Your task to perform on an android device: Add corsair k70 to the cart on newegg.com, then select checkout. Image 0: 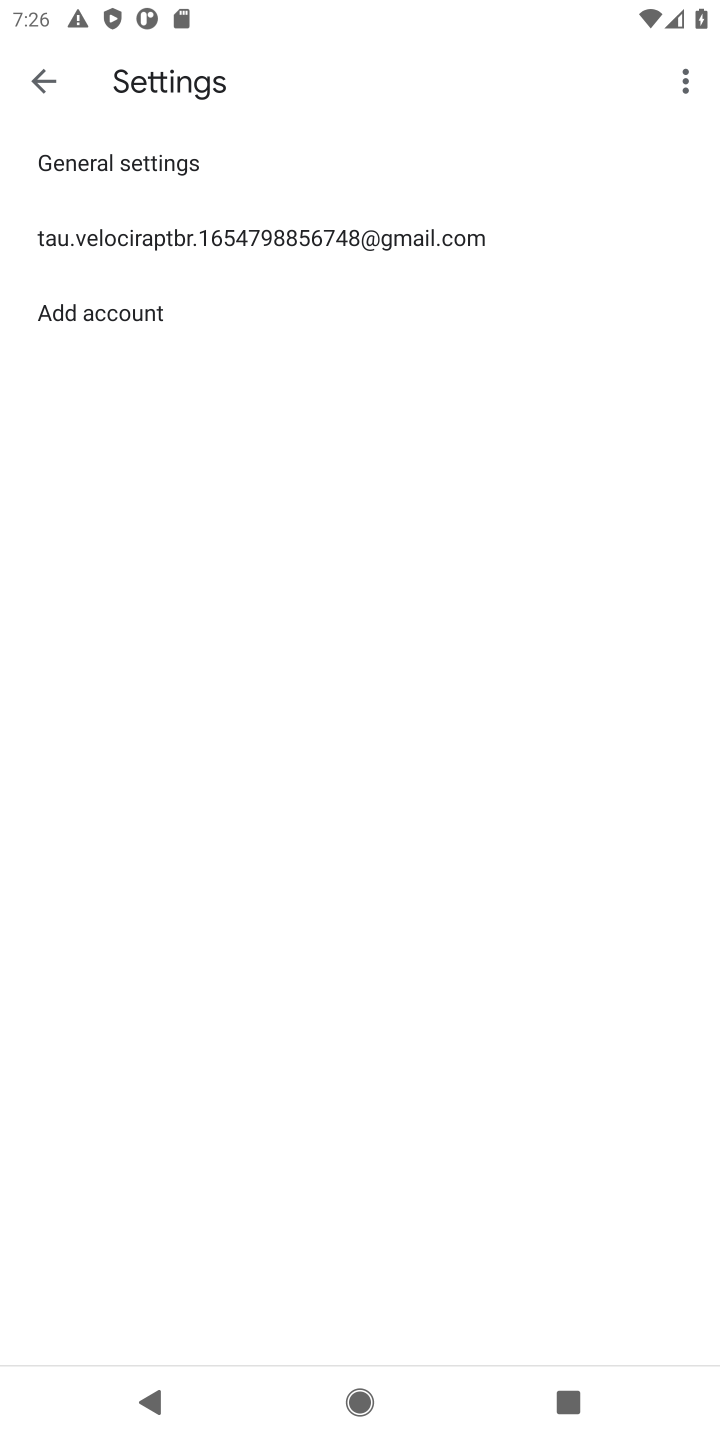
Step 0: press home button
Your task to perform on an android device: Add corsair k70 to the cart on newegg.com, then select checkout. Image 1: 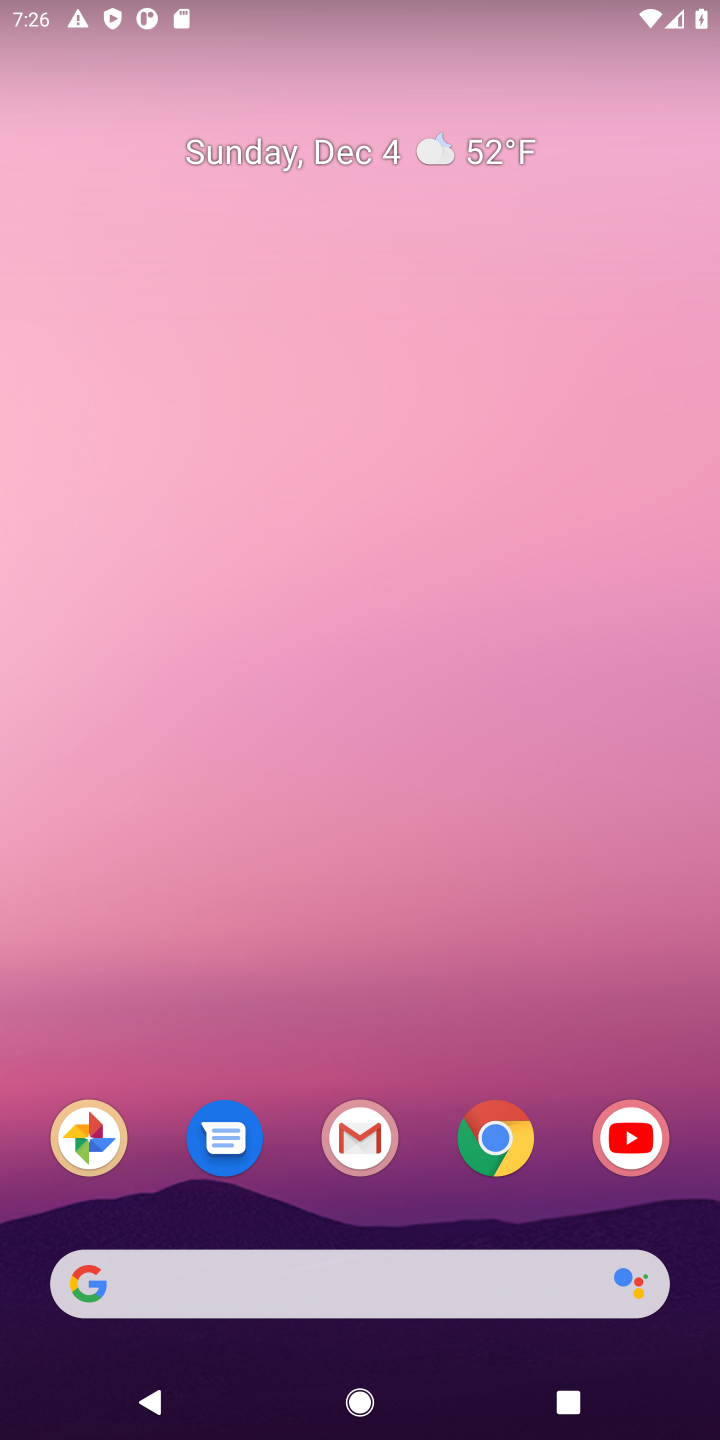
Step 1: click (496, 1146)
Your task to perform on an android device: Add corsair k70 to the cart on newegg.com, then select checkout. Image 2: 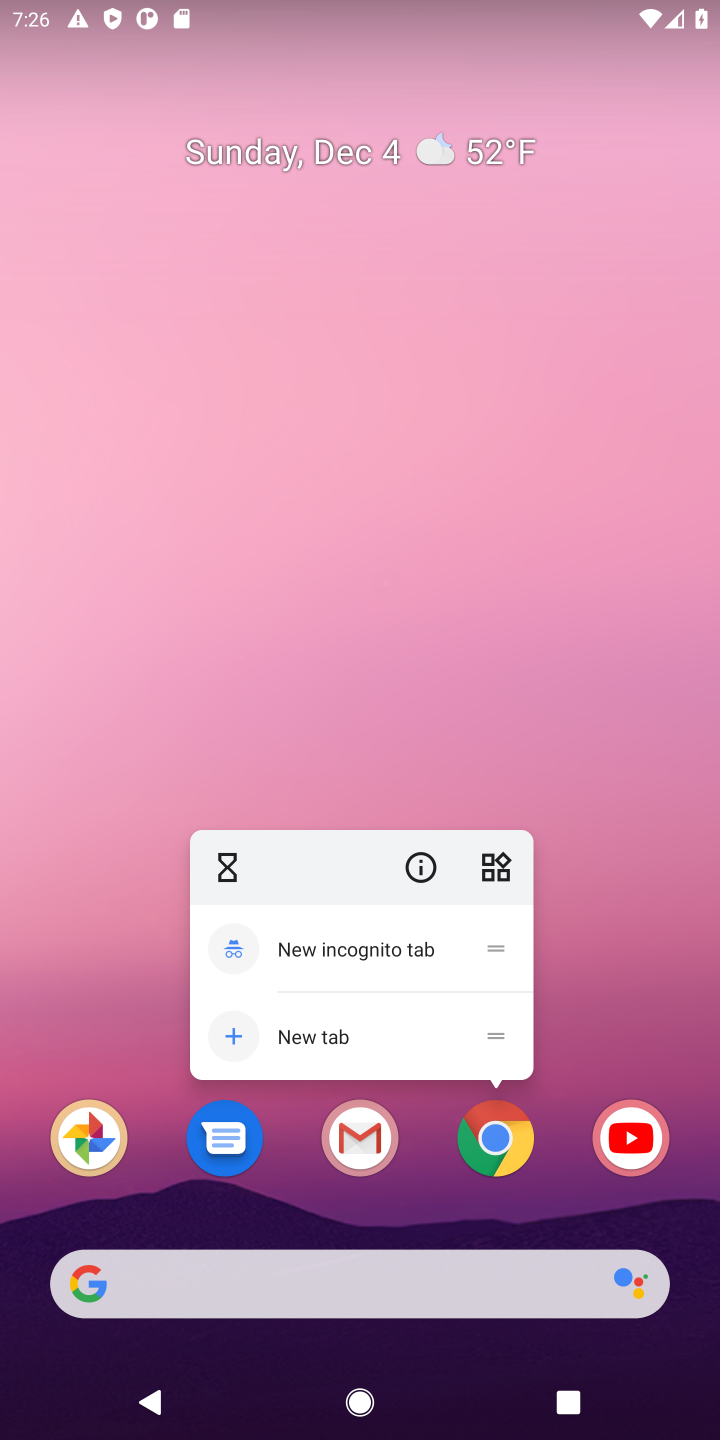
Step 2: click (496, 1146)
Your task to perform on an android device: Add corsair k70 to the cart on newegg.com, then select checkout. Image 3: 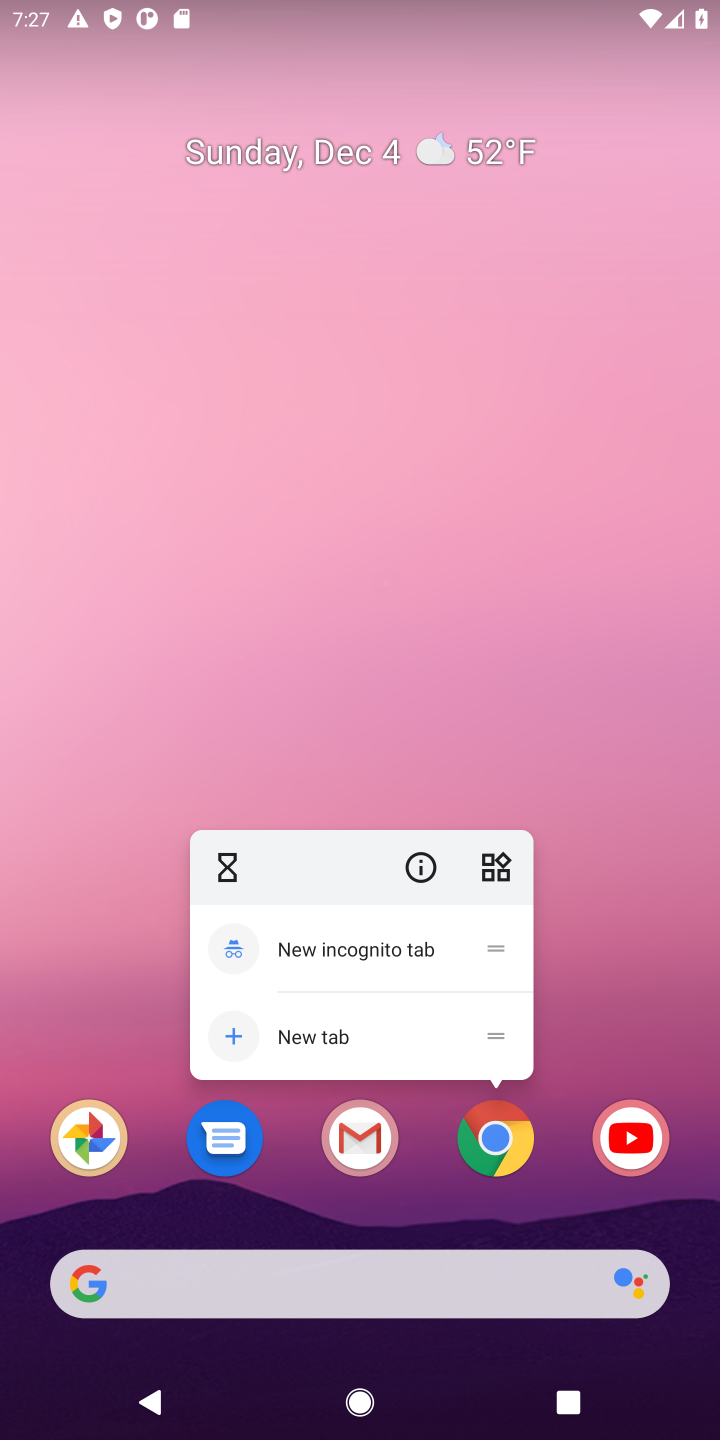
Step 3: click (496, 1146)
Your task to perform on an android device: Add corsair k70 to the cart on newegg.com, then select checkout. Image 4: 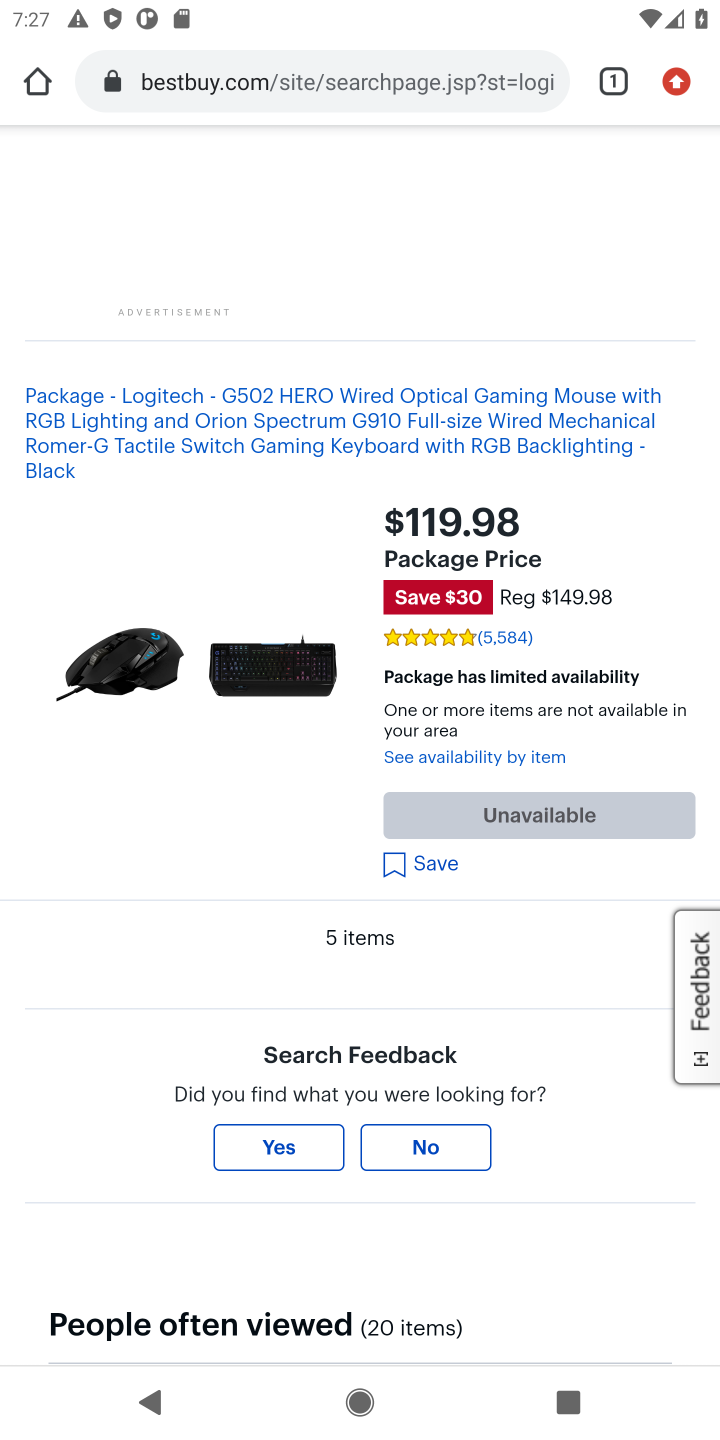
Step 4: click (450, 67)
Your task to perform on an android device: Add corsair k70 to the cart on newegg.com, then select checkout. Image 5: 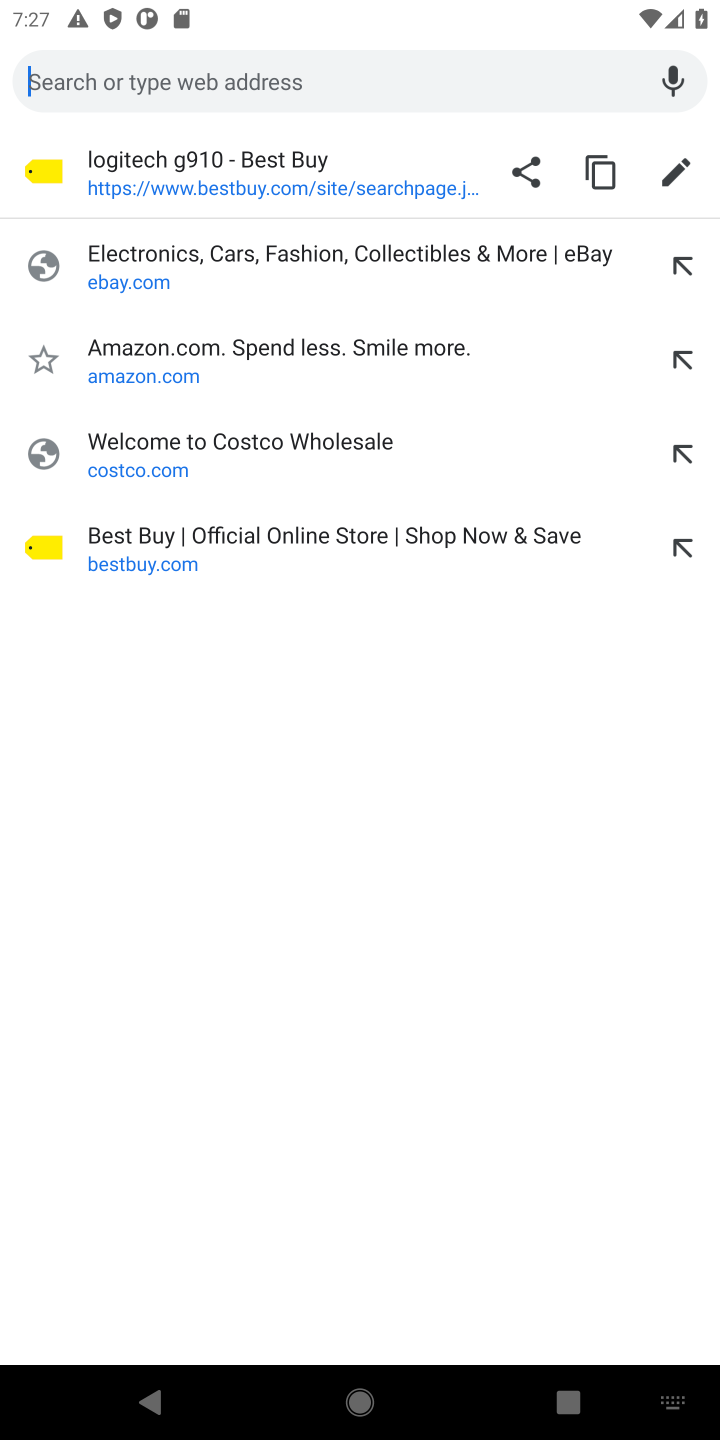
Step 5: type "newegg.com"
Your task to perform on an android device: Add corsair k70 to the cart on newegg.com, then select checkout. Image 6: 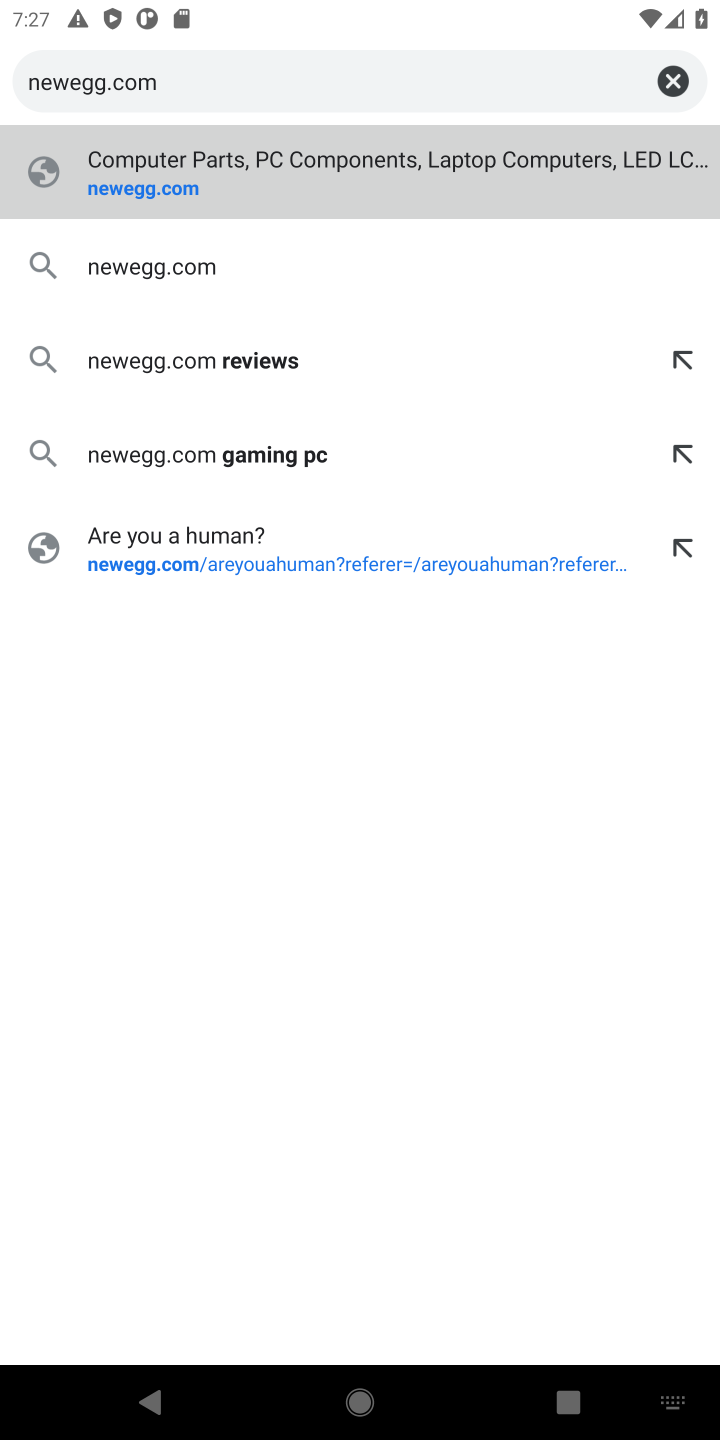
Step 6: press enter
Your task to perform on an android device: Add corsair k70 to the cart on newegg.com, then select checkout. Image 7: 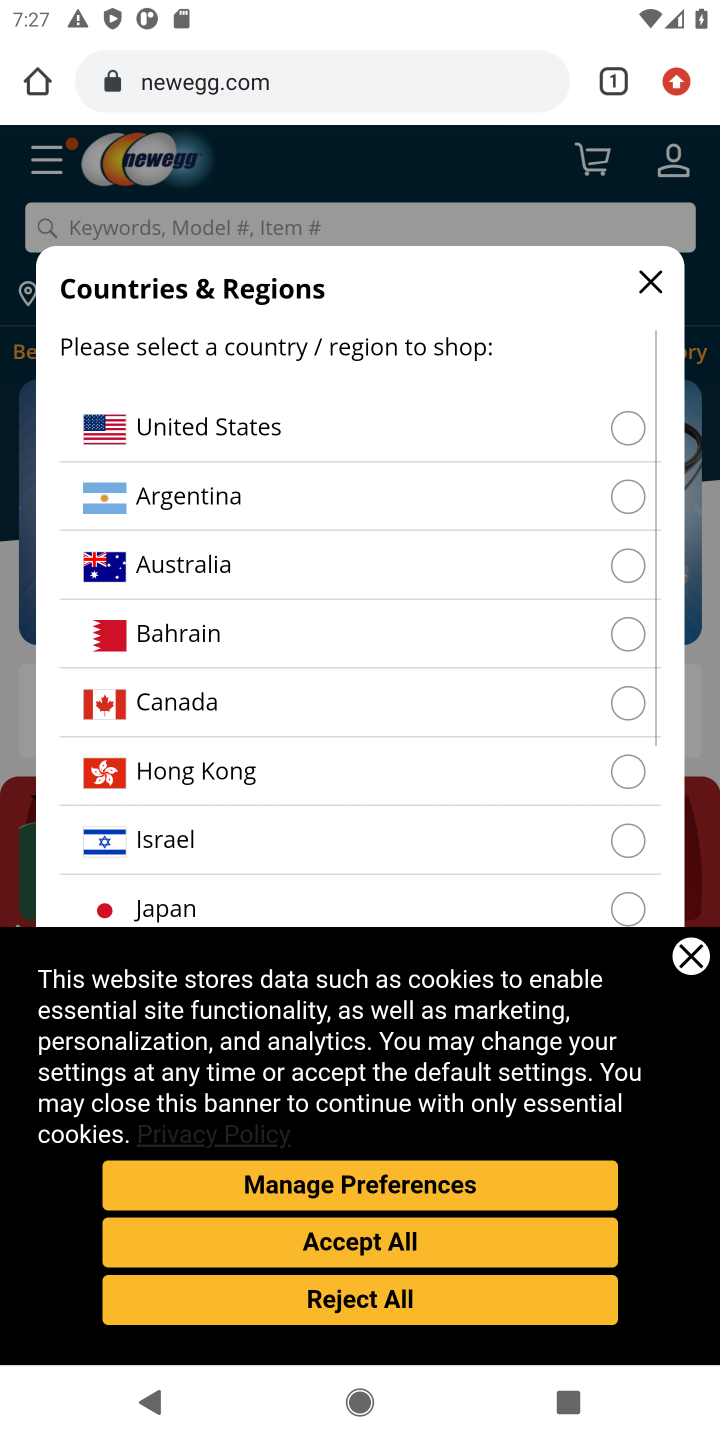
Step 7: click (702, 949)
Your task to perform on an android device: Add corsair k70 to the cart on newegg.com, then select checkout. Image 8: 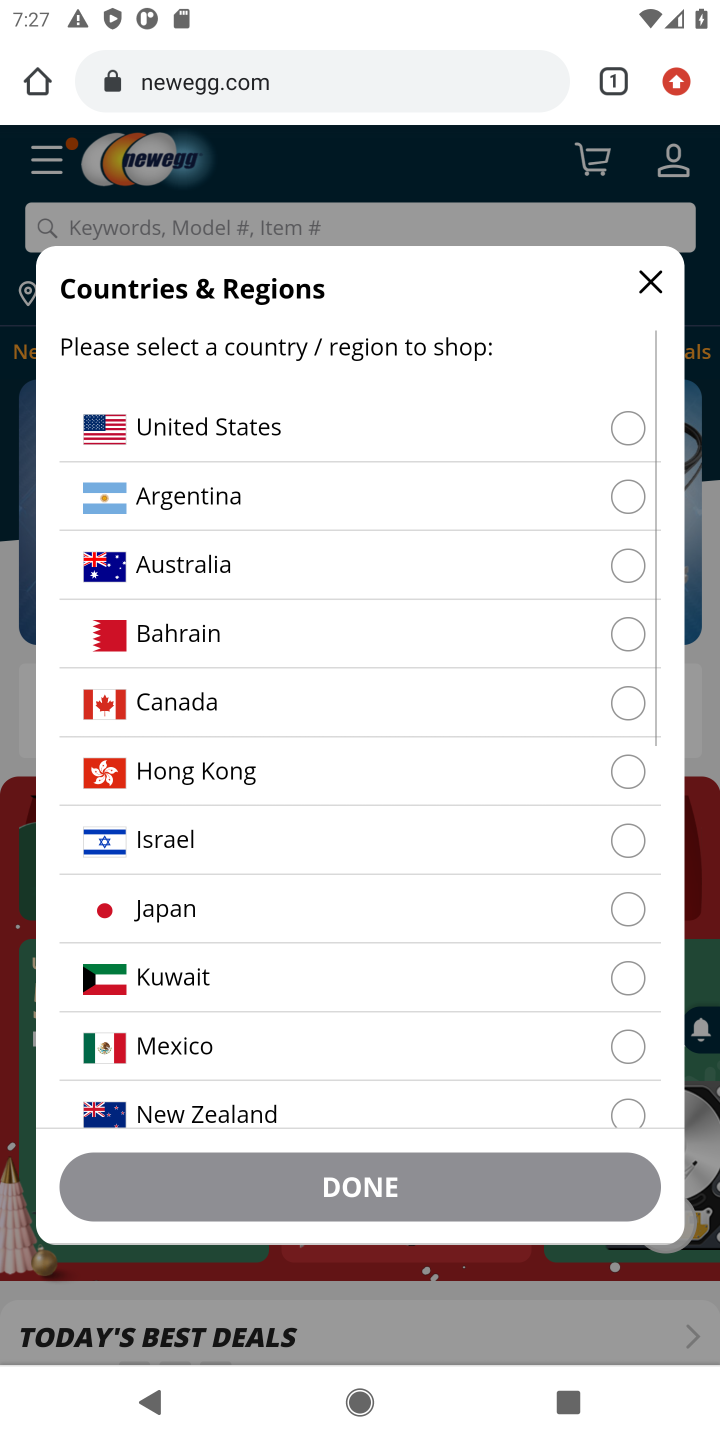
Step 8: click (635, 437)
Your task to perform on an android device: Add corsair k70 to the cart on newegg.com, then select checkout. Image 9: 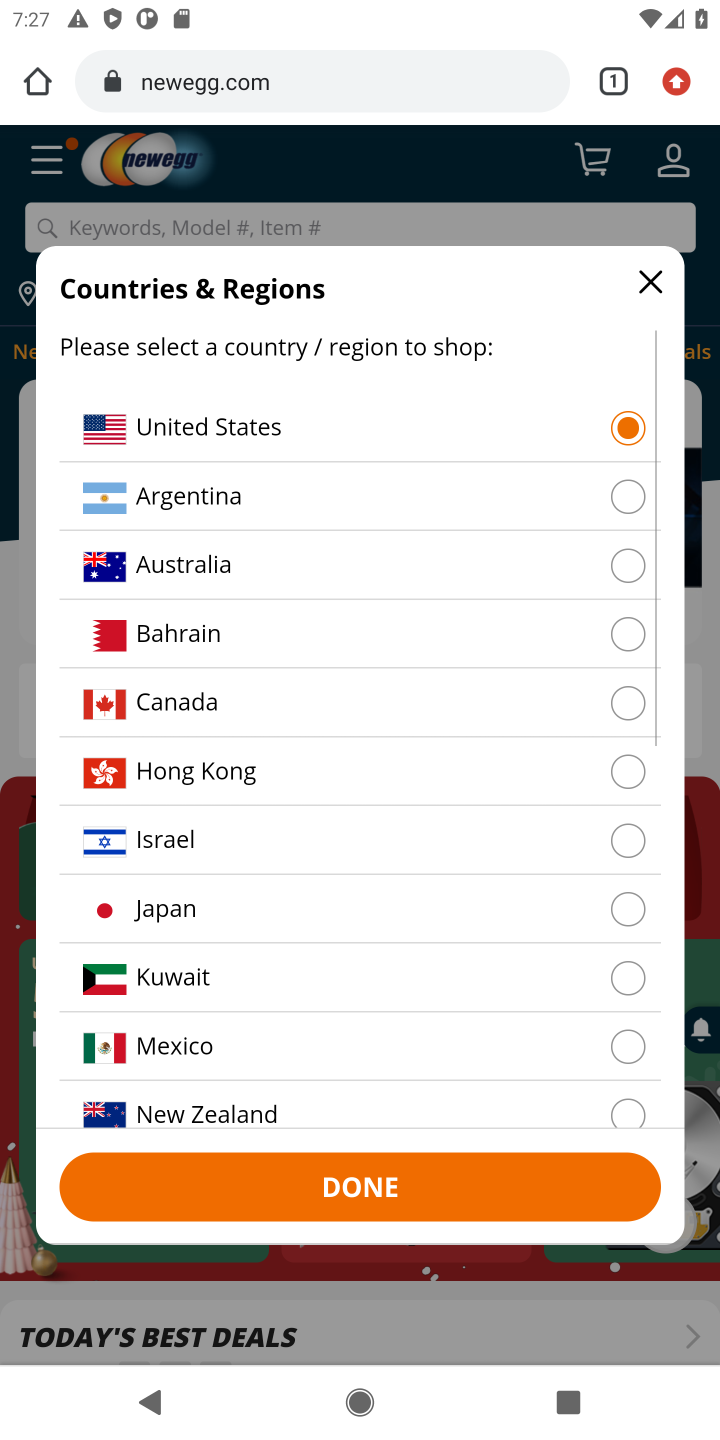
Step 9: click (474, 1173)
Your task to perform on an android device: Add corsair k70 to the cart on newegg.com, then select checkout. Image 10: 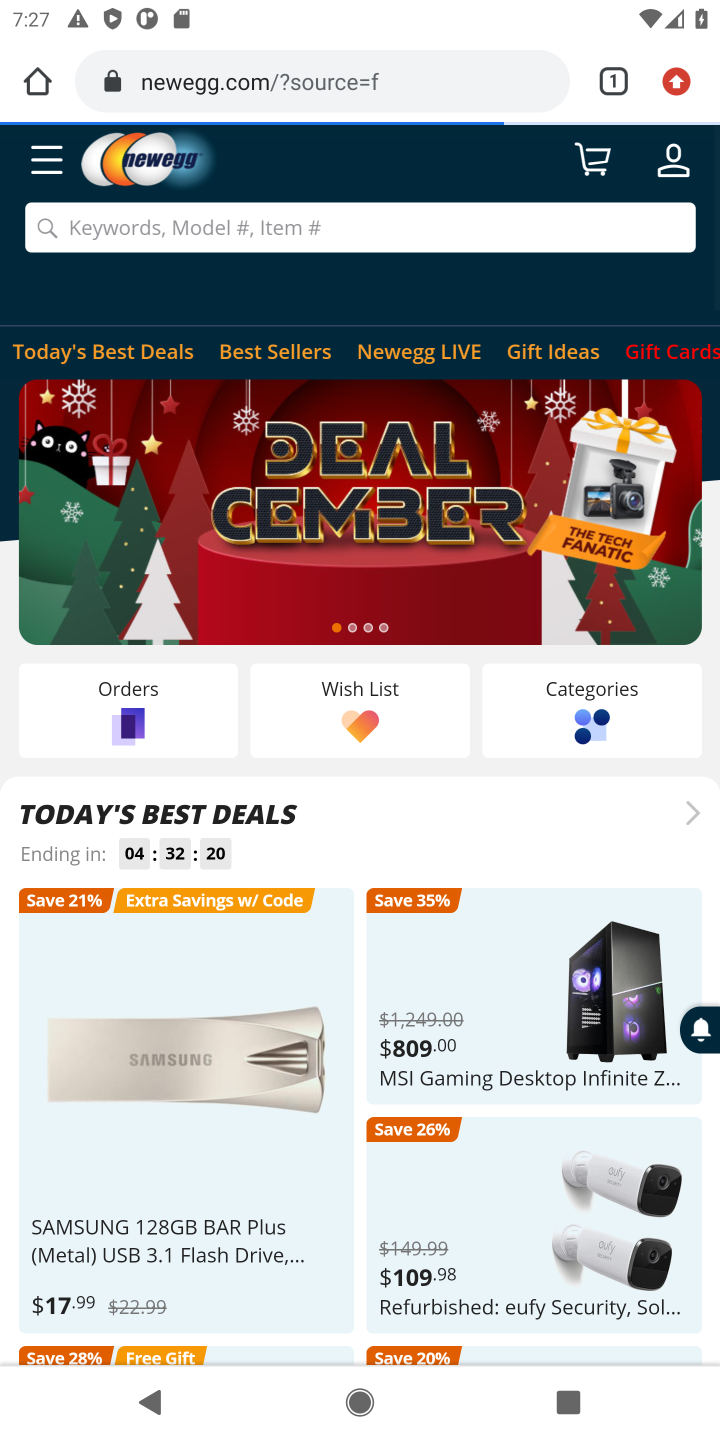
Step 10: click (486, 232)
Your task to perform on an android device: Add corsair k70 to the cart on newegg.com, then select checkout. Image 11: 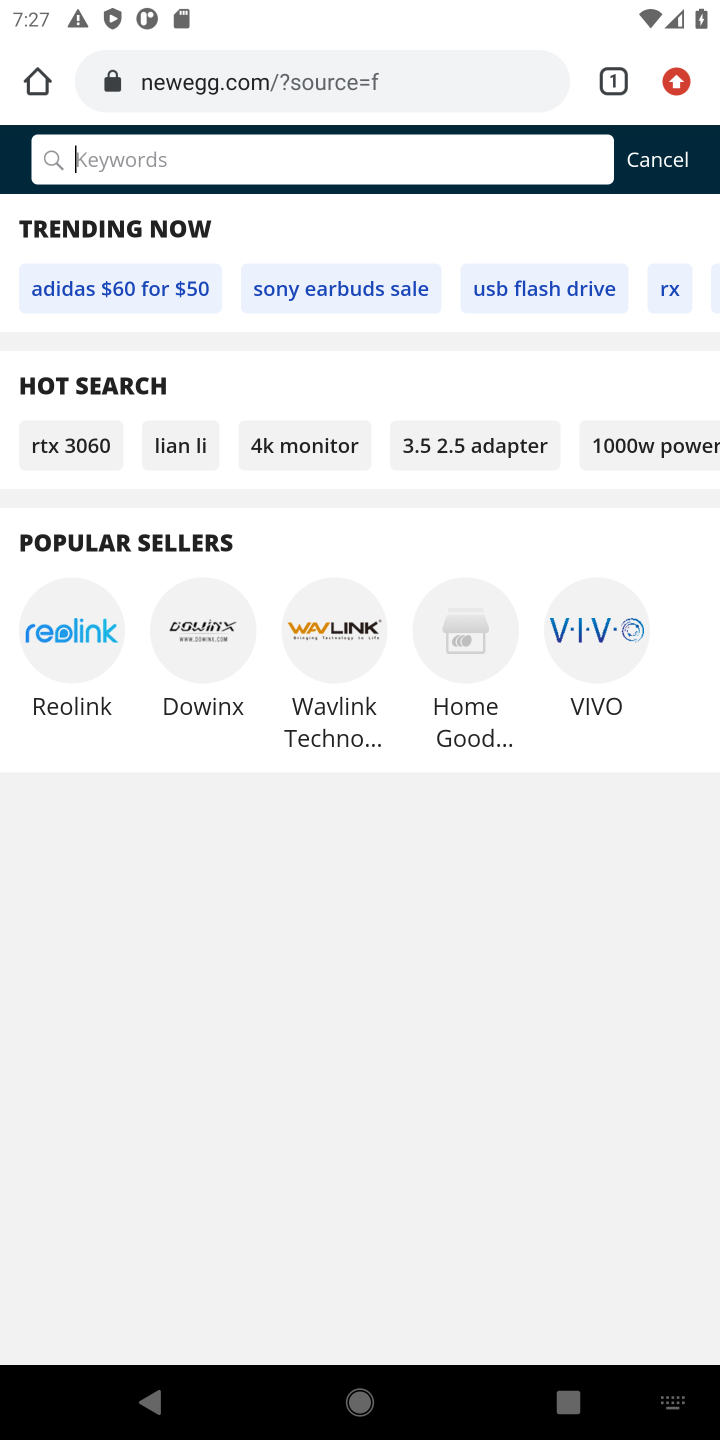
Step 11: press enter
Your task to perform on an android device: Add corsair k70 to the cart on newegg.com, then select checkout. Image 12: 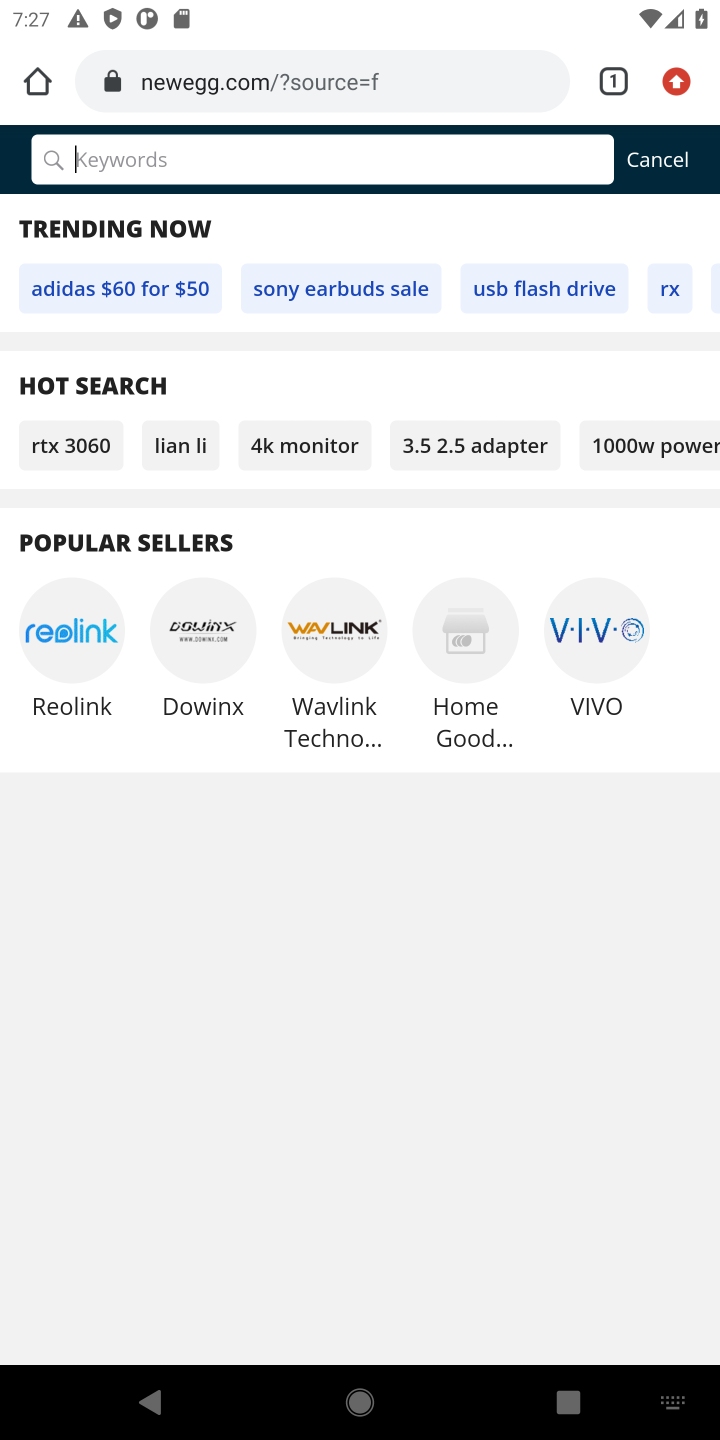
Step 12: type "corsair k70"
Your task to perform on an android device: Add corsair k70 to the cart on newegg.com, then select checkout. Image 13: 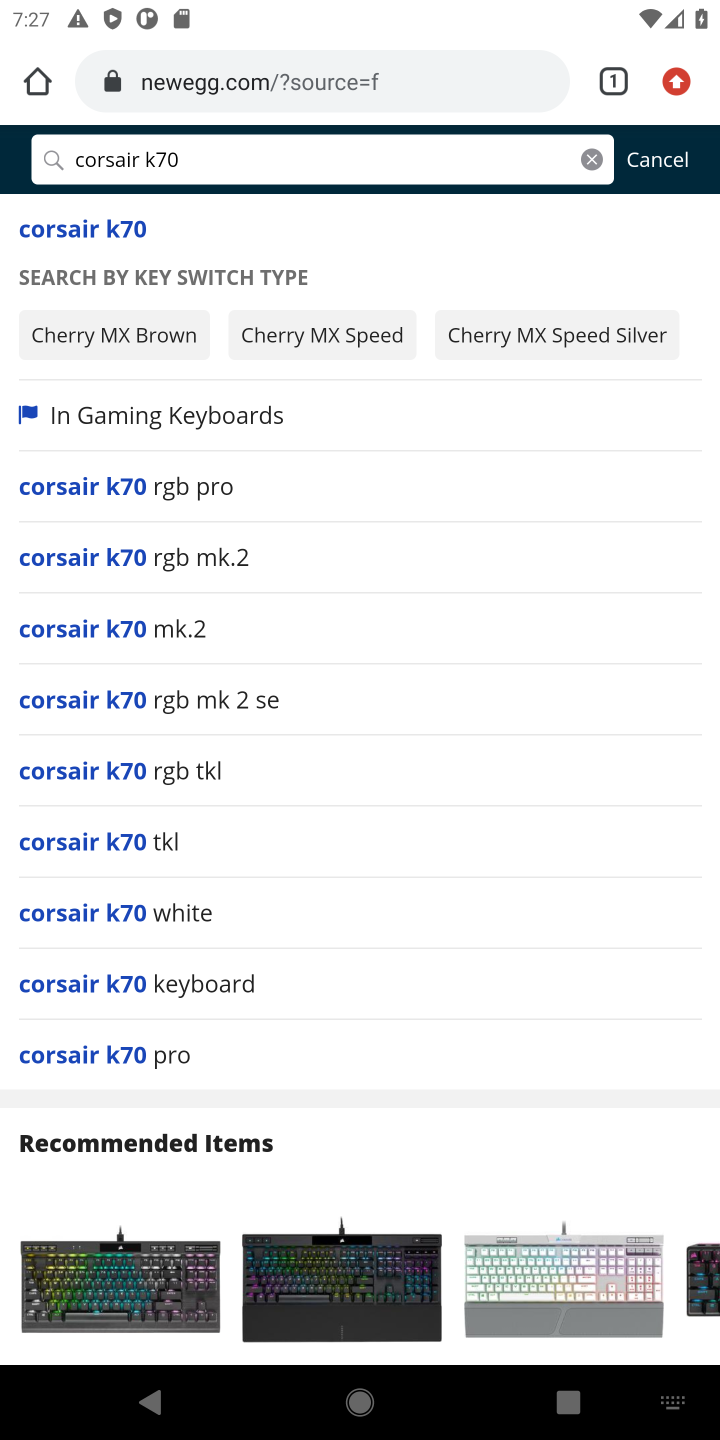
Step 13: click (121, 223)
Your task to perform on an android device: Add corsair k70 to the cart on newegg.com, then select checkout. Image 14: 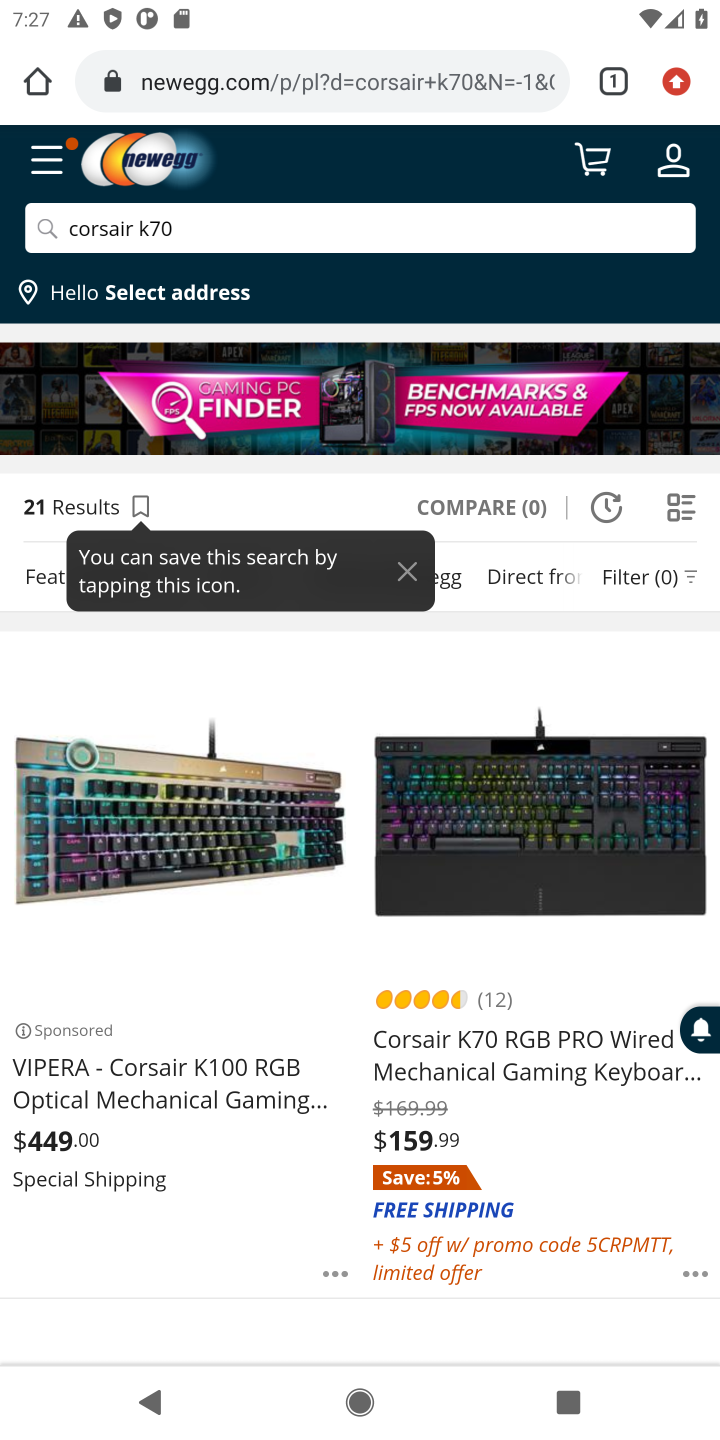
Step 14: click (576, 791)
Your task to perform on an android device: Add corsair k70 to the cart on newegg.com, then select checkout. Image 15: 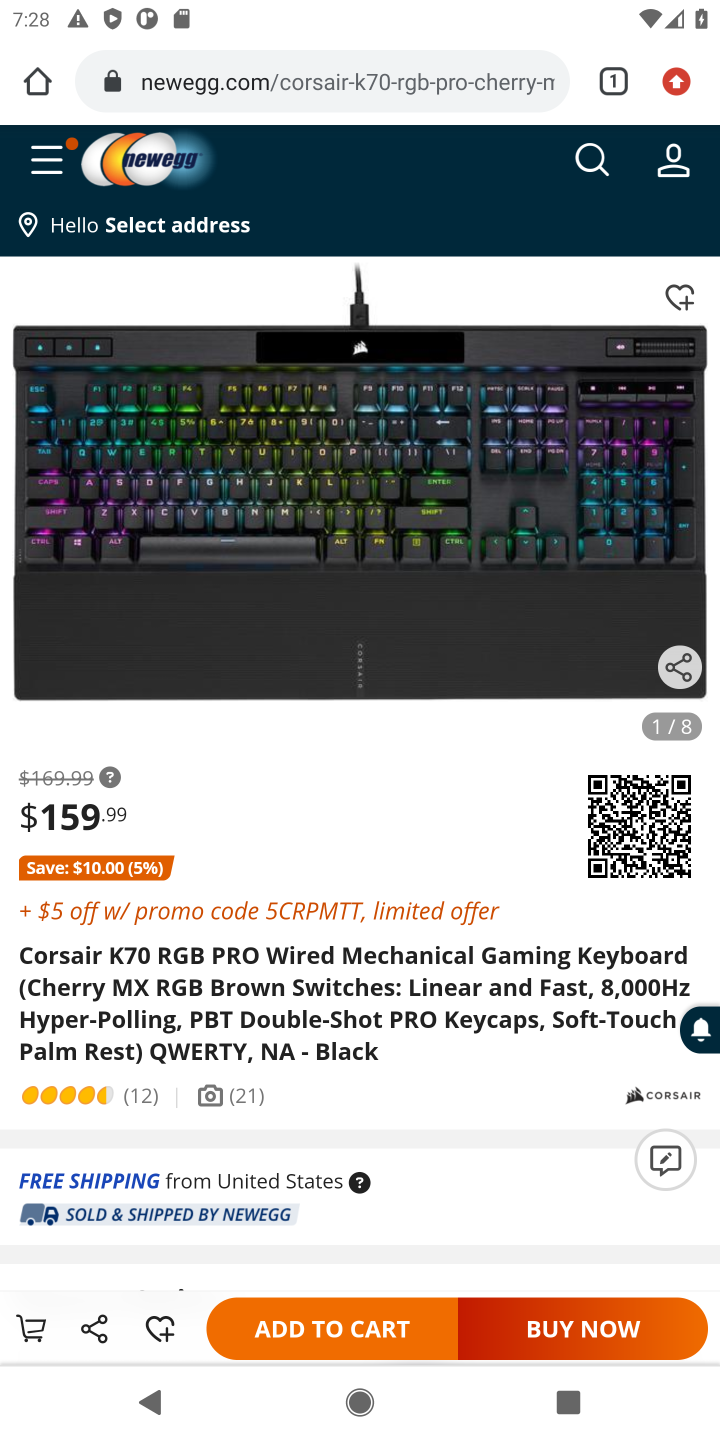
Step 15: click (322, 1335)
Your task to perform on an android device: Add corsair k70 to the cart on newegg.com, then select checkout. Image 16: 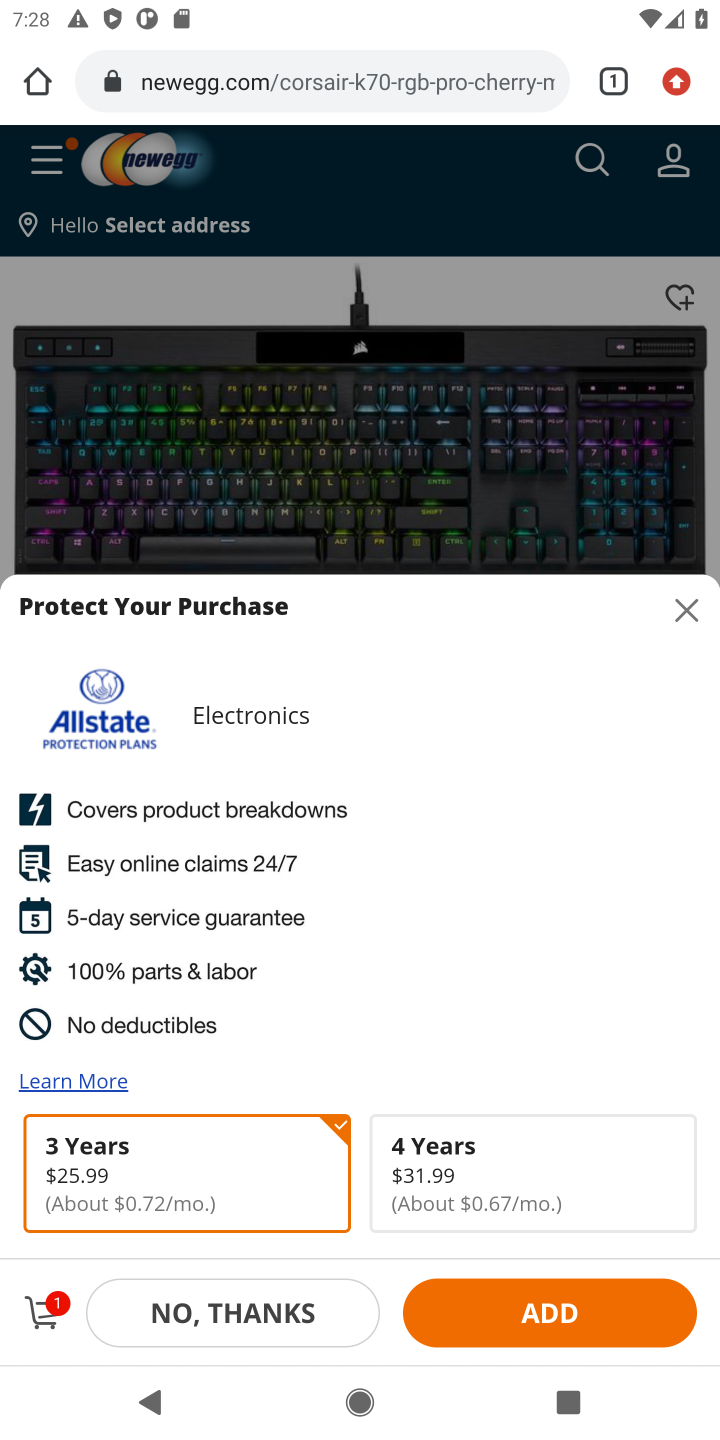
Step 16: click (40, 1313)
Your task to perform on an android device: Add corsair k70 to the cart on newegg.com, then select checkout. Image 17: 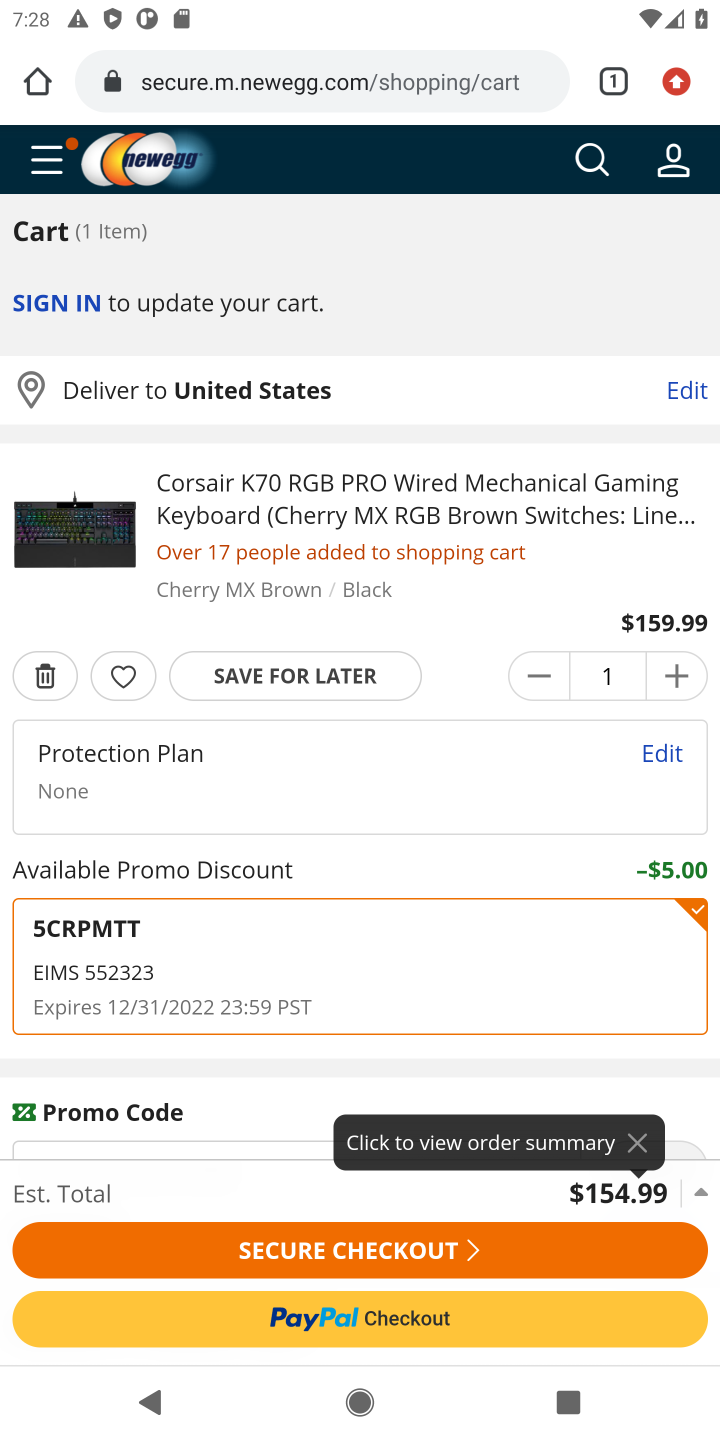
Step 17: click (378, 1247)
Your task to perform on an android device: Add corsair k70 to the cart on newegg.com, then select checkout. Image 18: 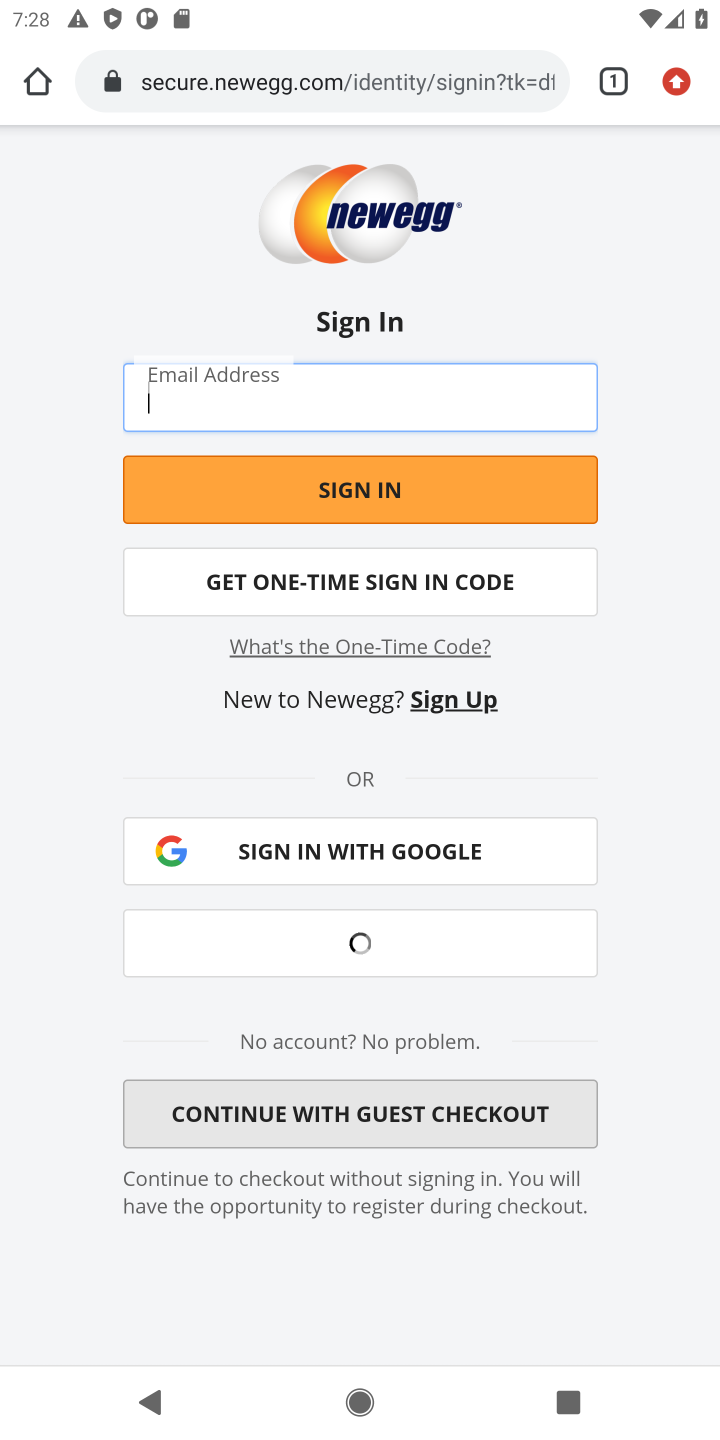
Step 18: task complete